Your task to perform on an android device: Open privacy settings Image 0: 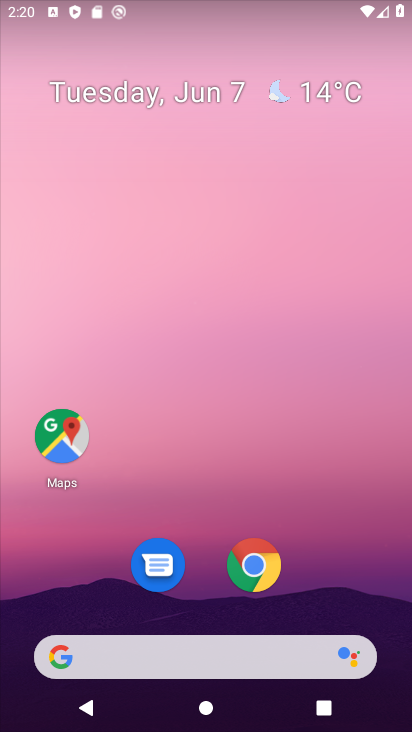
Step 0: drag from (278, 650) to (283, 70)
Your task to perform on an android device: Open privacy settings Image 1: 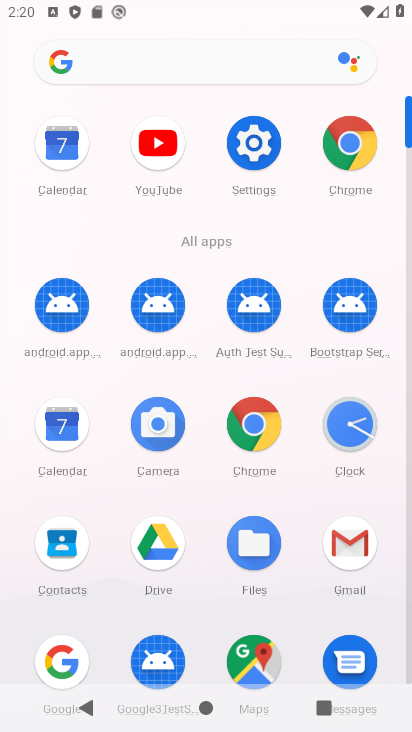
Step 1: click (244, 161)
Your task to perform on an android device: Open privacy settings Image 2: 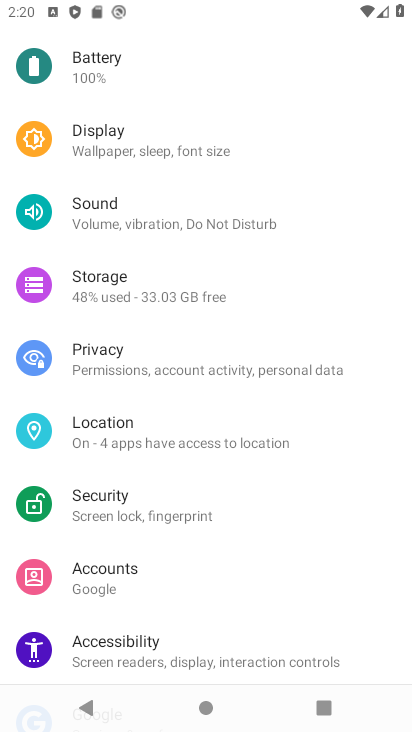
Step 2: click (92, 360)
Your task to perform on an android device: Open privacy settings Image 3: 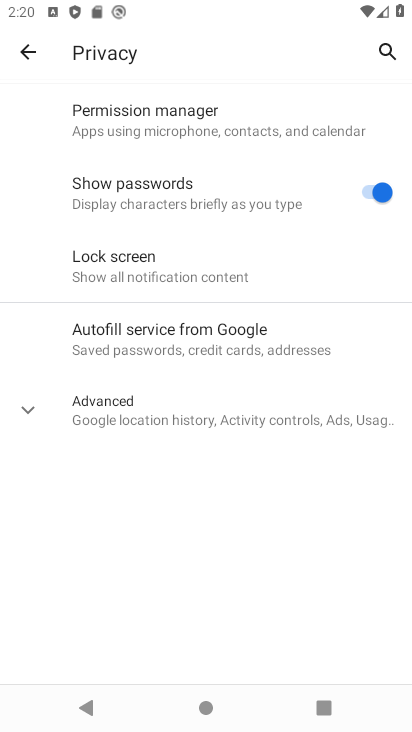
Step 3: task complete